Your task to perform on an android device: Go to CNN.com Image 0: 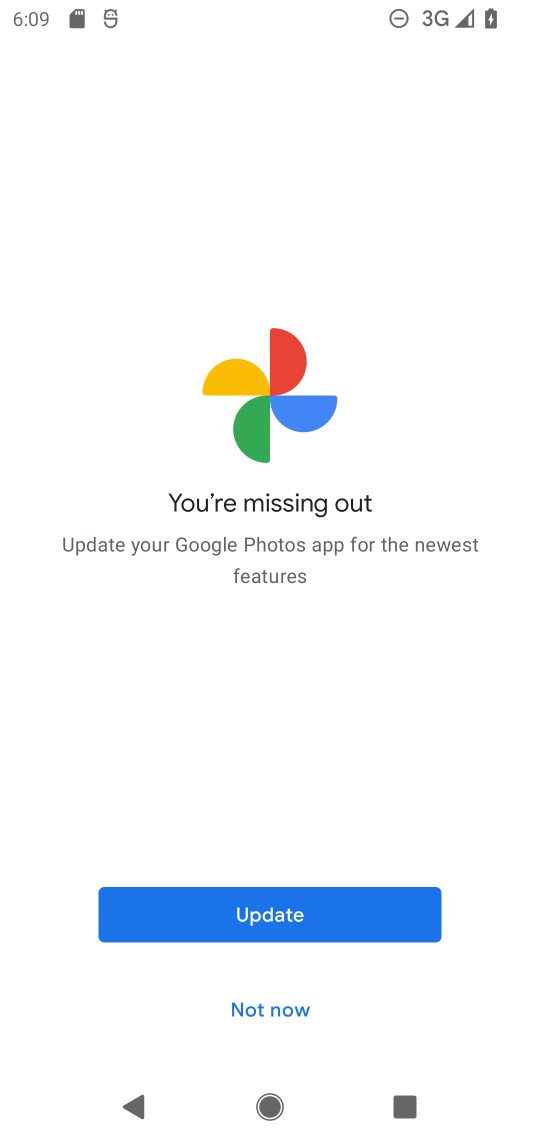
Step 0: press home button
Your task to perform on an android device: Go to CNN.com Image 1: 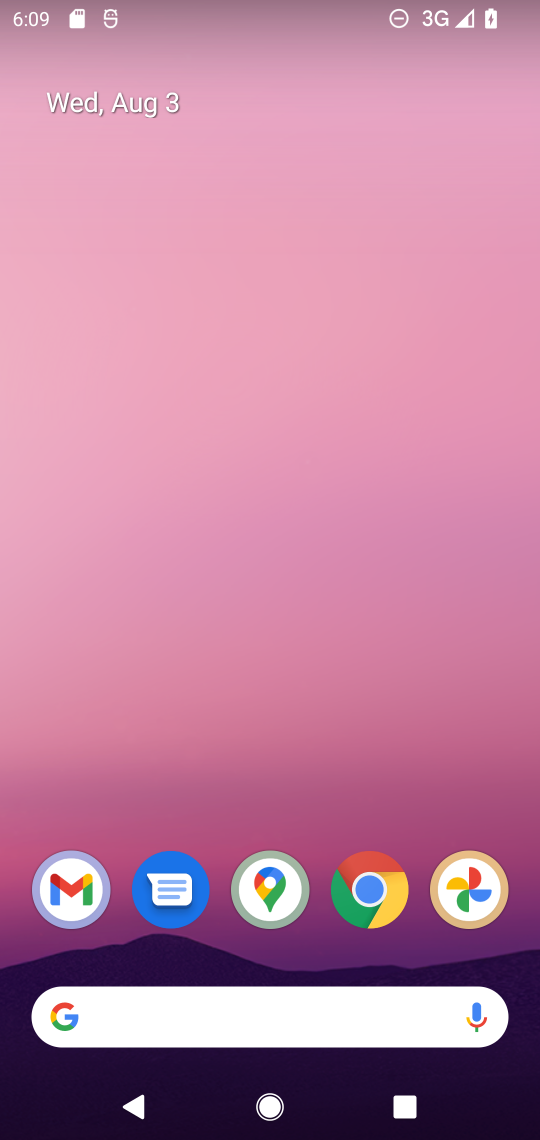
Step 1: click (320, 1004)
Your task to perform on an android device: Go to CNN.com Image 2: 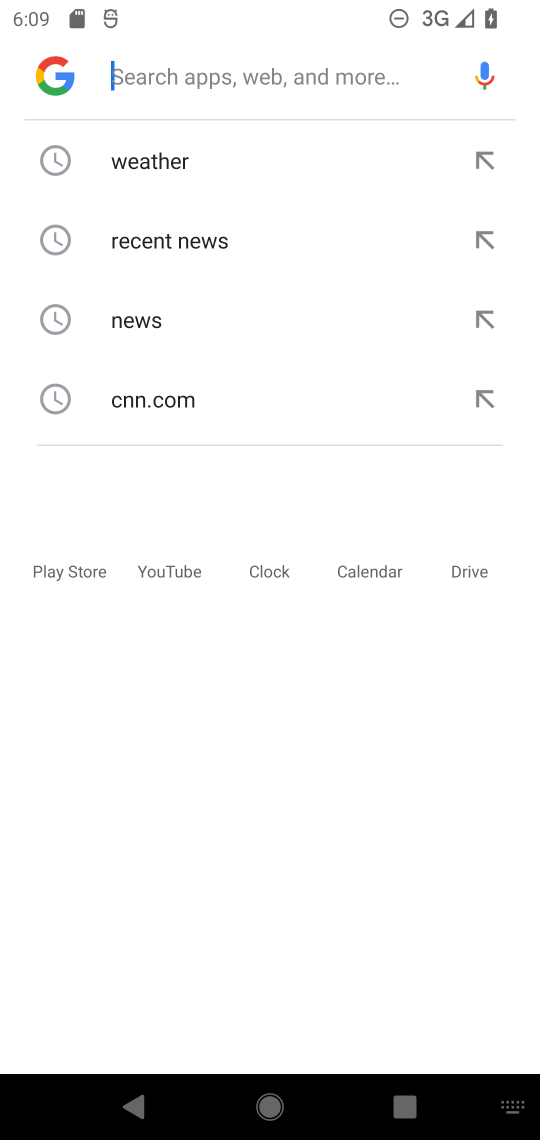
Step 2: type "cnn.com"
Your task to perform on an android device: Go to CNN.com Image 3: 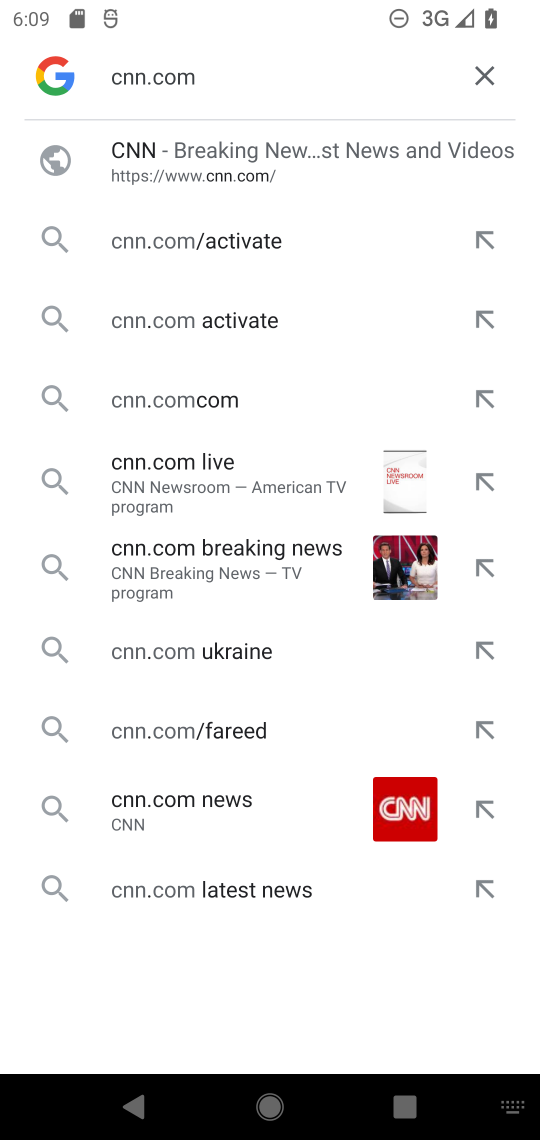
Step 3: click (234, 166)
Your task to perform on an android device: Go to CNN.com Image 4: 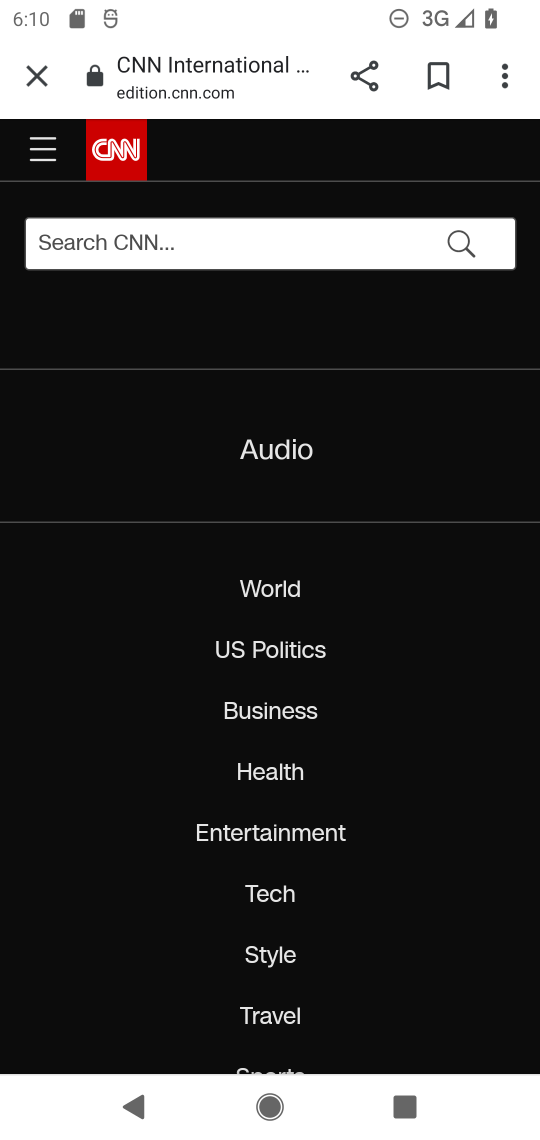
Step 4: task complete